Your task to perform on an android device: turn smart compose on in the gmail app Image 0: 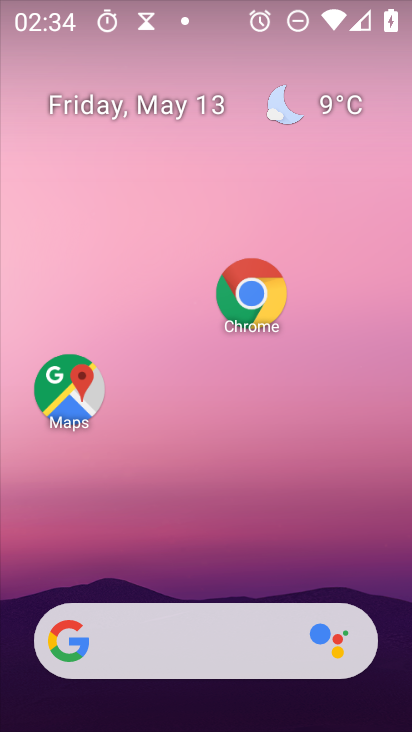
Step 0: drag from (238, 595) to (374, 274)
Your task to perform on an android device: turn smart compose on in the gmail app Image 1: 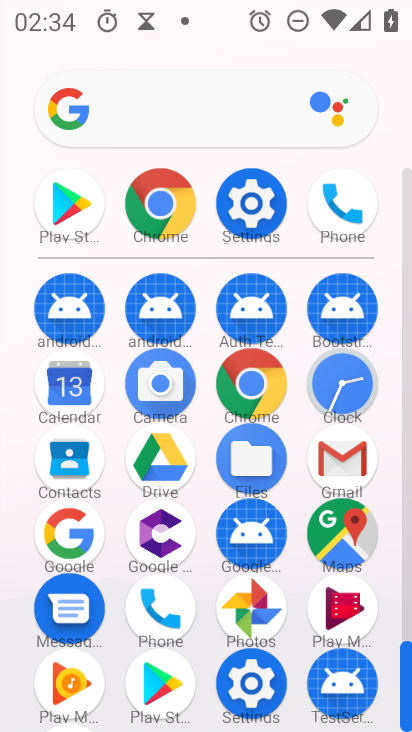
Step 1: click (342, 473)
Your task to perform on an android device: turn smart compose on in the gmail app Image 2: 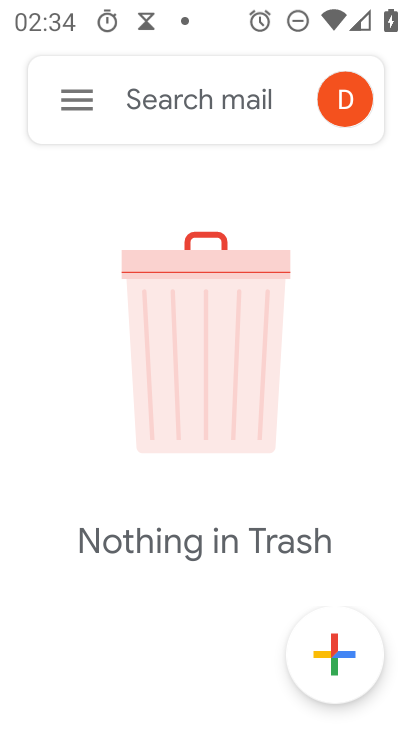
Step 2: click (72, 83)
Your task to perform on an android device: turn smart compose on in the gmail app Image 3: 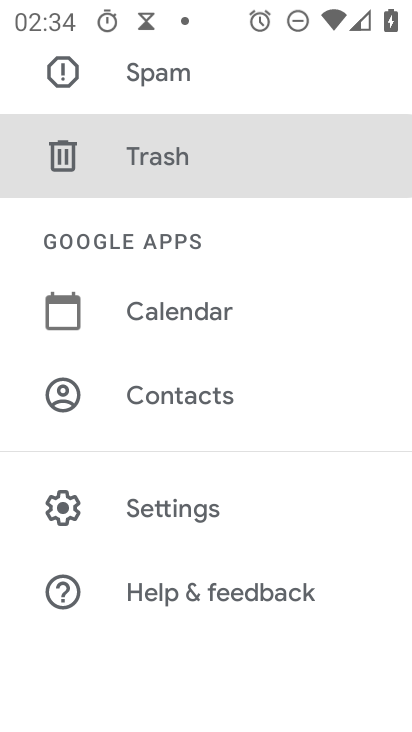
Step 3: click (182, 507)
Your task to perform on an android device: turn smart compose on in the gmail app Image 4: 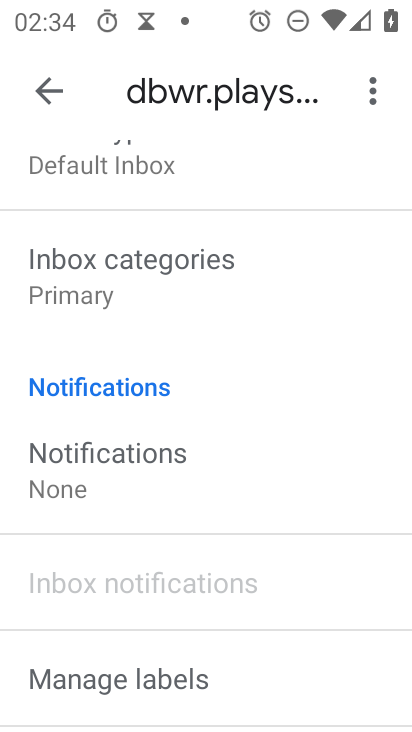
Step 4: task complete